Your task to perform on an android device: set an alarm Image 0: 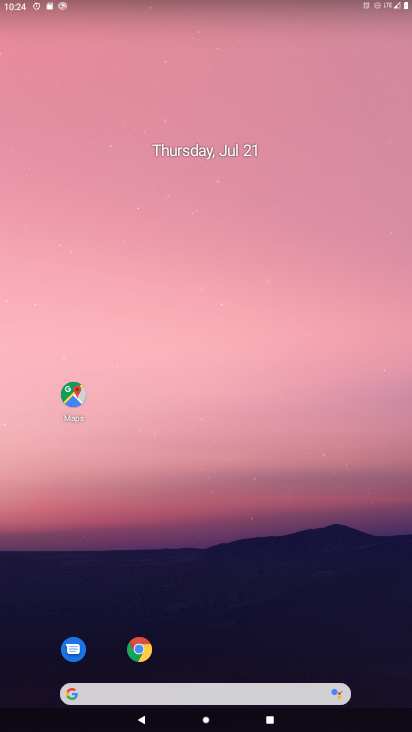
Step 0: drag from (332, 631) to (195, 16)
Your task to perform on an android device: set an alarm Image 1: 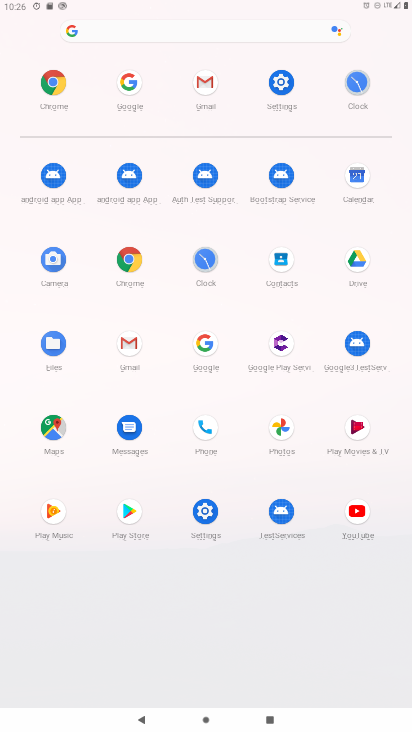
Step 1: click (202, 254)
Your task to perform on an android device: set an alarm Image 2: 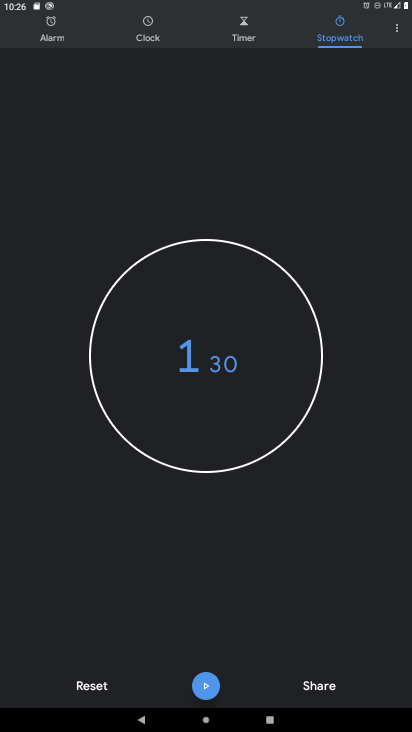
Step 2: click (52, 30)
Your task to perform on an android device: set an alarm Image 3: 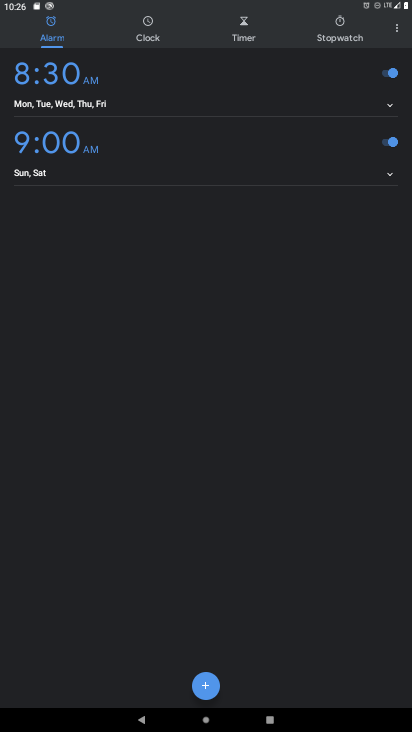
Step 3: click (205, 689)
Your task to perform on an android device: set an alarm Image 4: 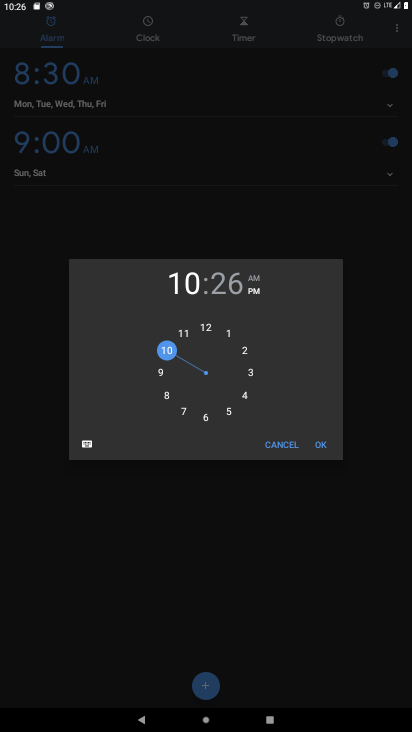
Step 4: click (313, 443)
Your task to perform on an android device: set an alarm Image 5: 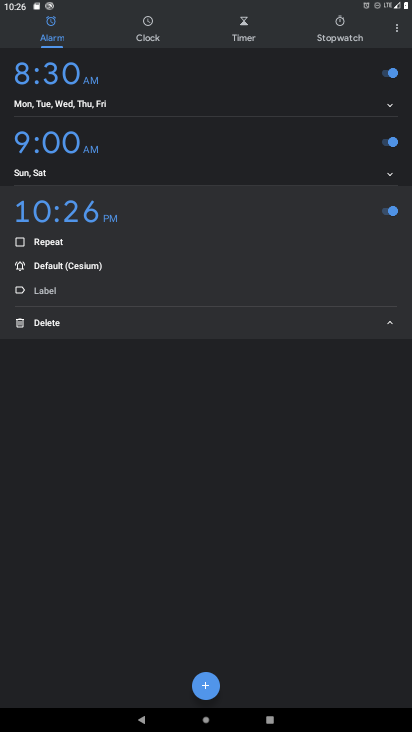
Step 5: task complete